Your task to perform on an android device: install app "Paramount+ | Peak Streaming" Image 0: 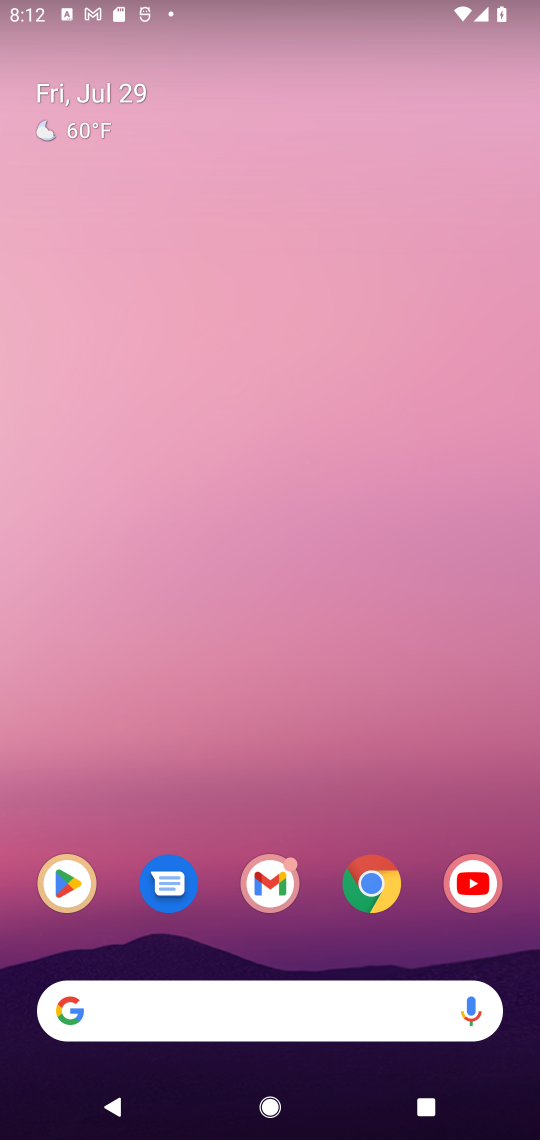
Step 0: click (74, 892)
Your task to perform on an android device: install app "Paramount+ | Peak Streaming" Image 1: 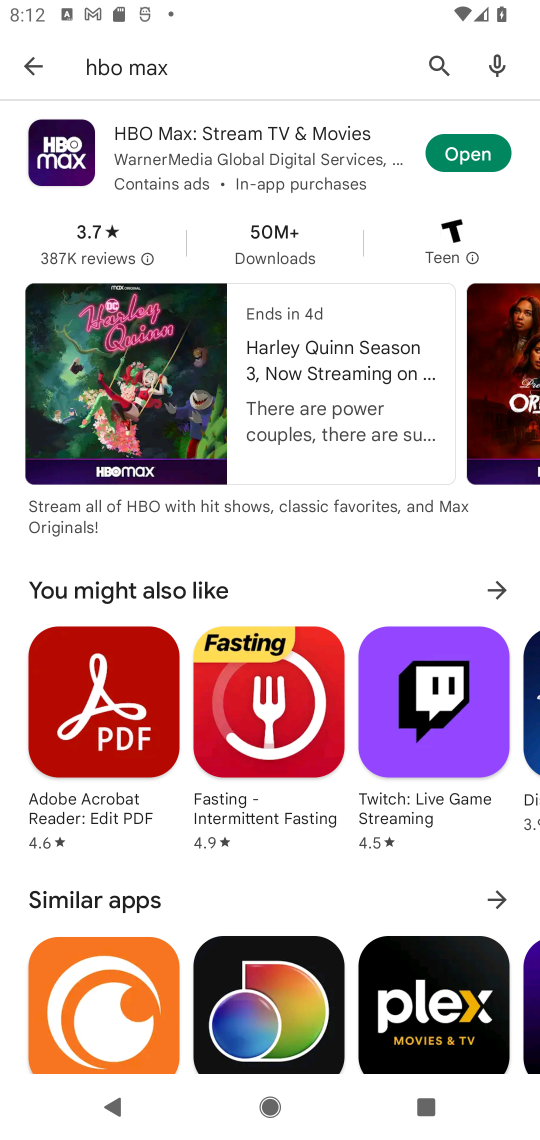
Step 1: click (432, 64)
Your task to perform on an android device: install app "Paramount+ | Peak Streaming" Image 2: 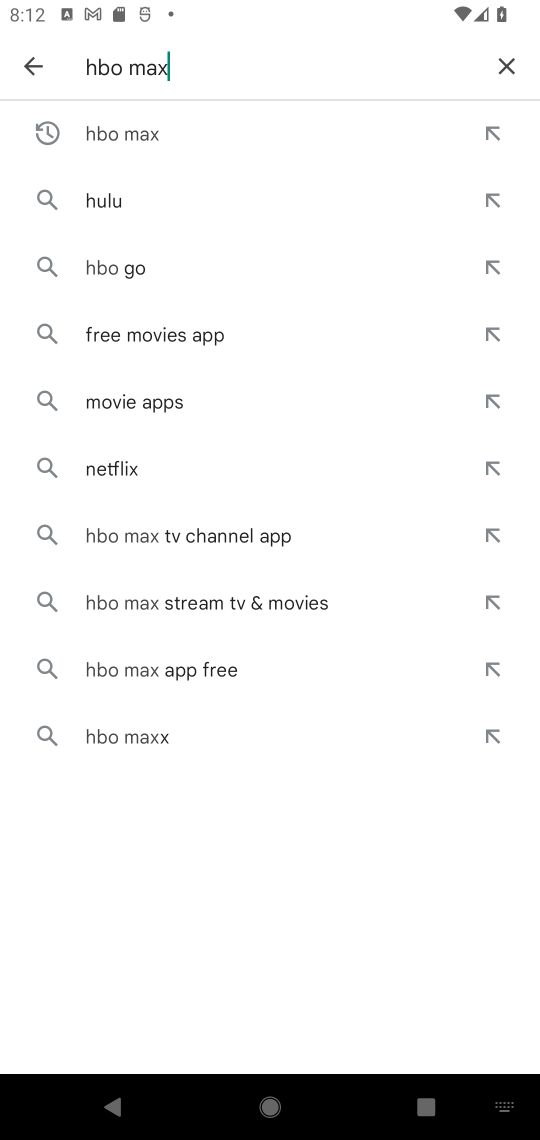
Step 2: click (509, 69)
Your task to perform on an android device: install app "Paramount+ | Peak Streaming" Image 3: 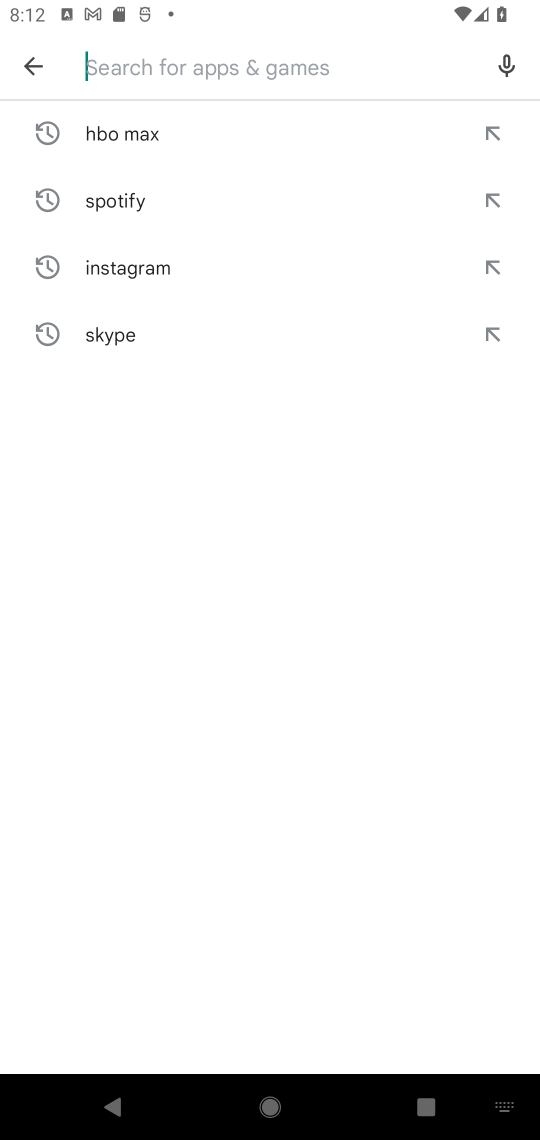
Step 3: click (133, 62)
Your task to perform on an android device: install app "Paramount+ | Peak Streaming" Image 4: 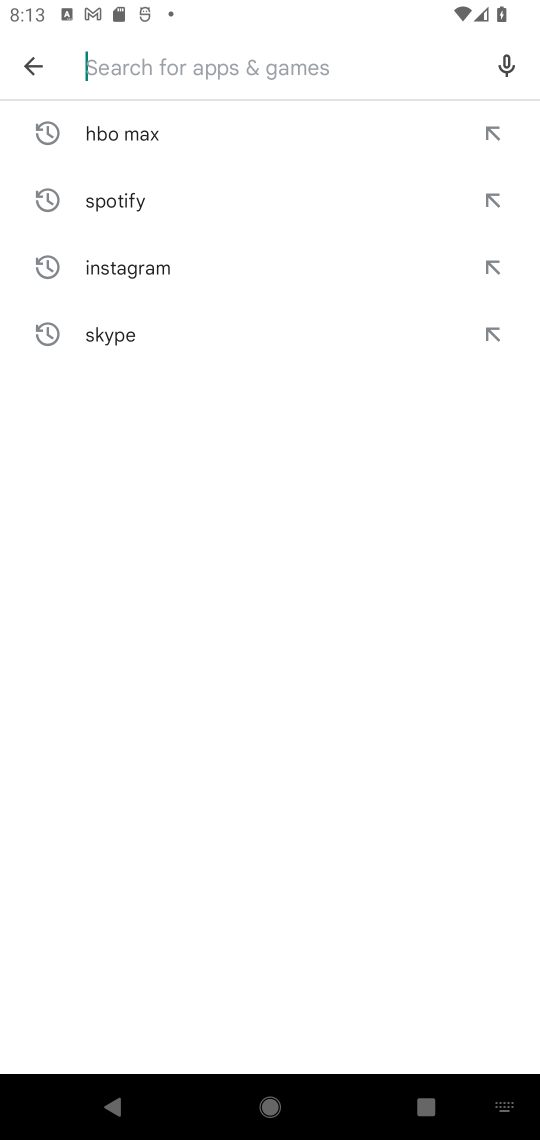
Step 4: type "paramount+"
Your task to perform on an android device: install app "Paramount+ | Peak Streaming" Image 5: 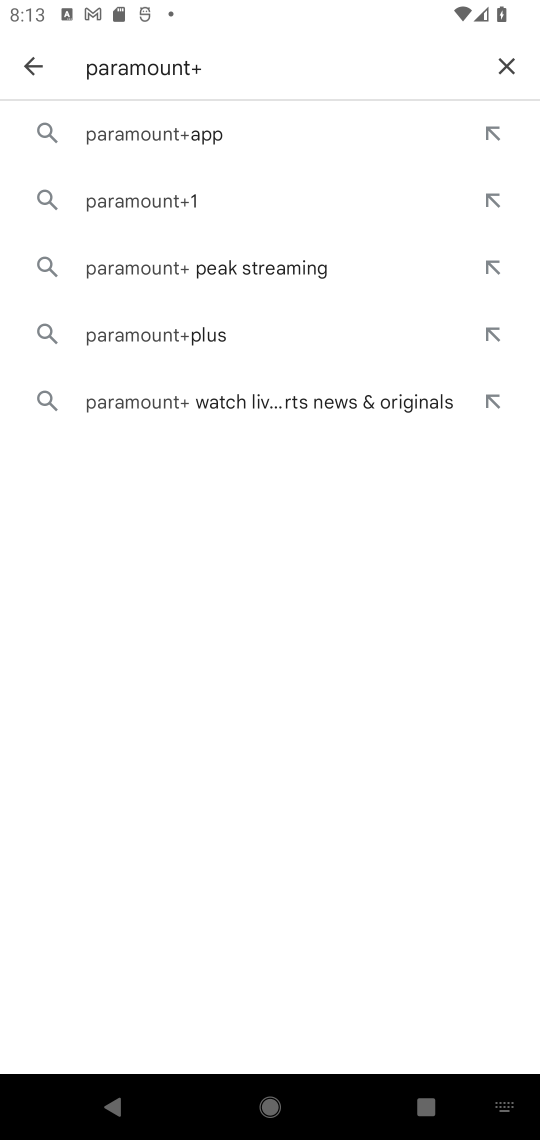
Step 5: click (155, 201)
Your task to perform on an android device: install app "Paramount+ | Peak Streaming" Image 6: 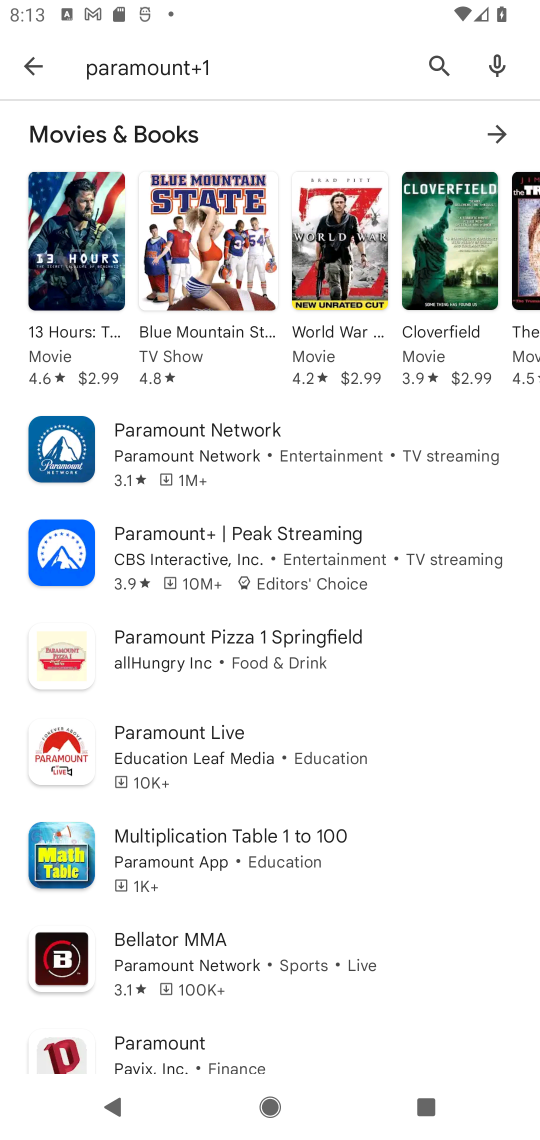
Step 6: click (235, 570)
Your task to perform on an android device: install app "Paramount+ | Peak Streaming" Image 7: 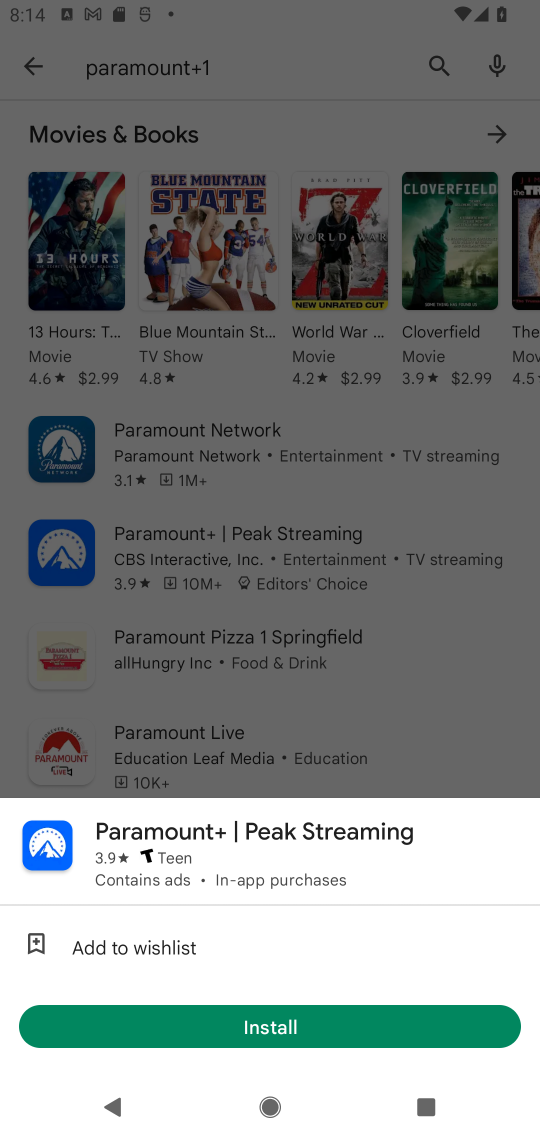
Step 7: click (349, 1023)
Your task to perform on an android device: install app "Paramount+ | Peak Streaming" Image 8: 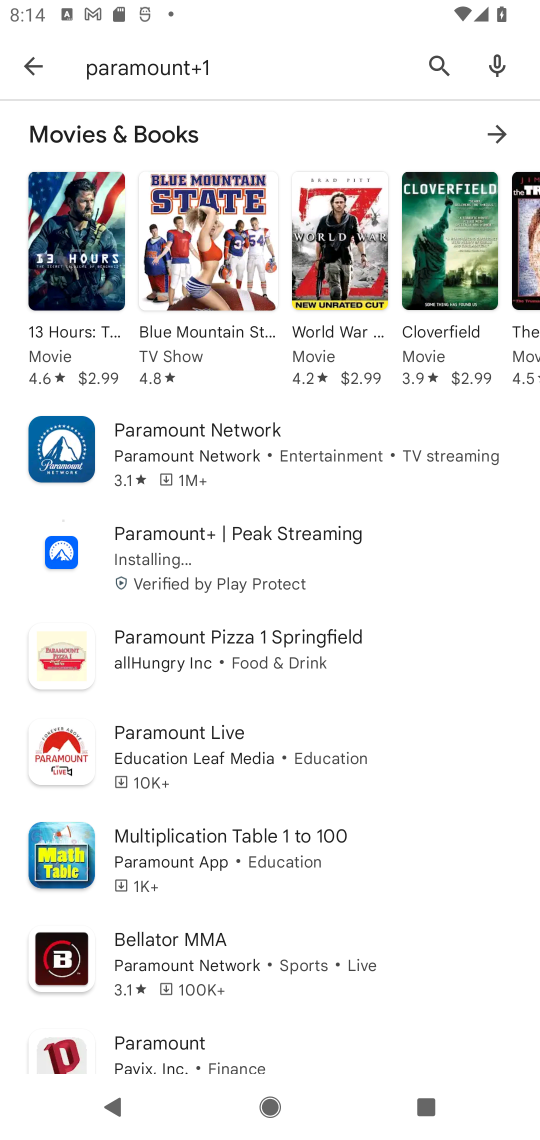
Step 8: click (224, 538)
Your task to perform on an android device: install app "Paramount+ | Peak Streaming" Image 9: 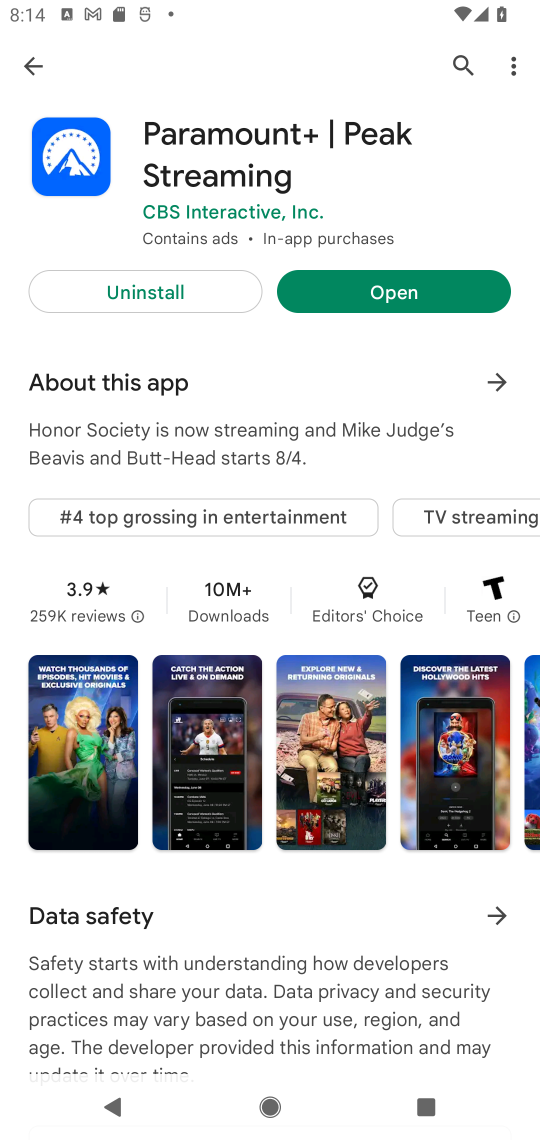
Step 9: task complete